Your task to perform on an android device: delete the emails in spam in the gmail app Image 0: 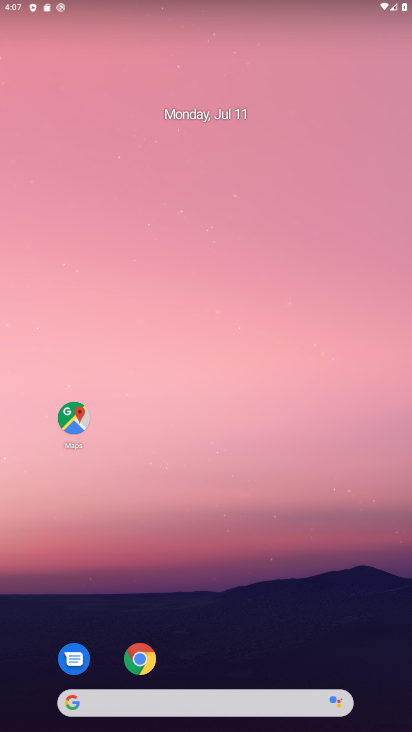
Step 0: drag from (198, 629) to (240, 43)
Your task to perform on an android device: delete the emails in spam in the gmail app Image 1: 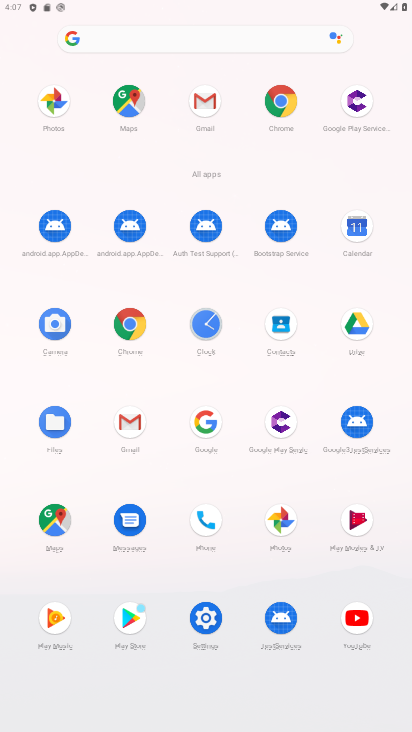
Step 1: click (204, 106)
Your task to perform on an android device: delete the emails in spam in the gmail app Image 2: 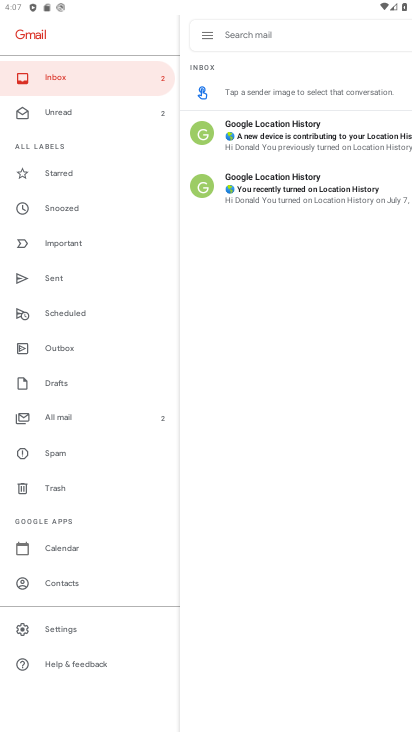
Step 2: click (56, 450)
Your task to perform on an android device: delete the emails in spam in the gmail app Image 3: 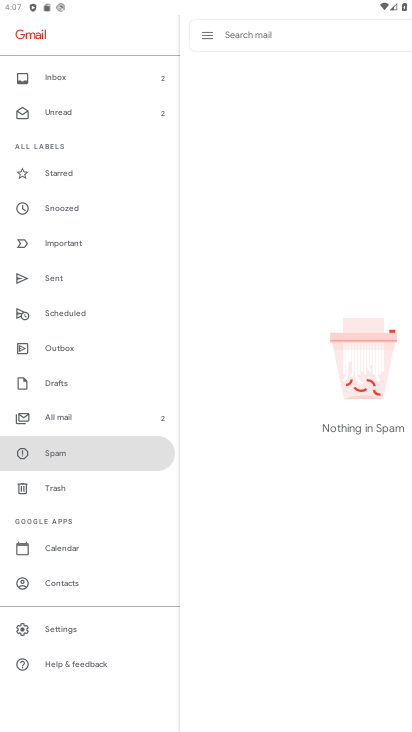
Step 3: task complete